Your task to perform on an android device: turn notification dots on Image 0: 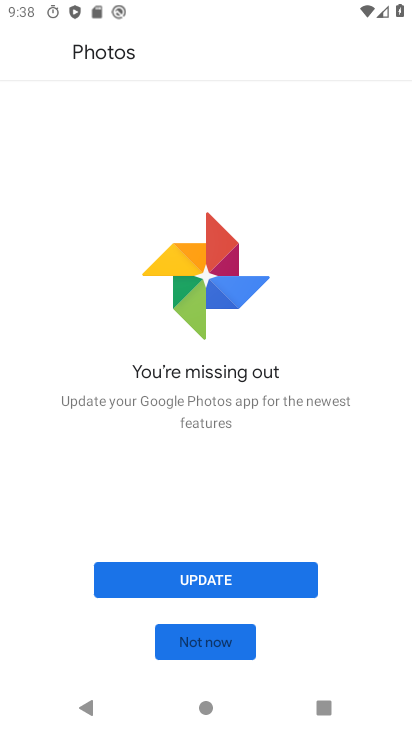
Step 0: press home button
Your task to perform on an android device: turn notification dots on Image 1: 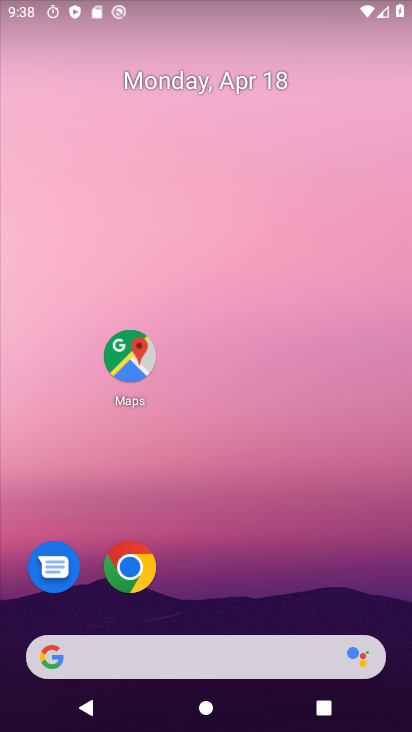
Step 1: drag from (316, 687) to (342, 388)
Your task to perform on an android device: turn notification dots on Image 2: 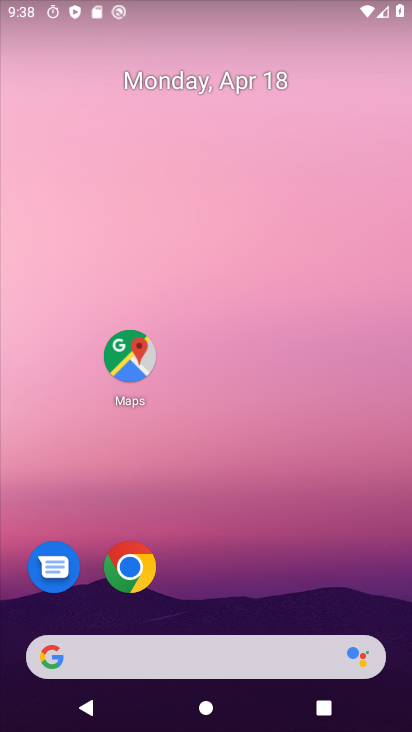
Step 2: drag from (247, 683) to (323, 329)
Your task to perform on an android device: turn notification dots on Image 3: 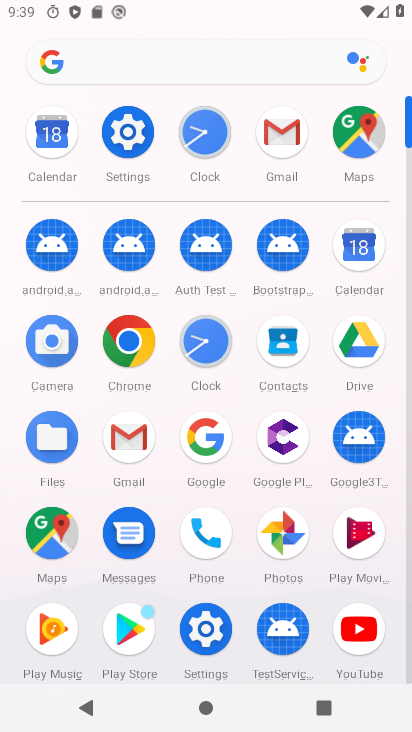
Step 3: click (190, 614)
Your task to perform on an android device: turn notification dots on Image 4: 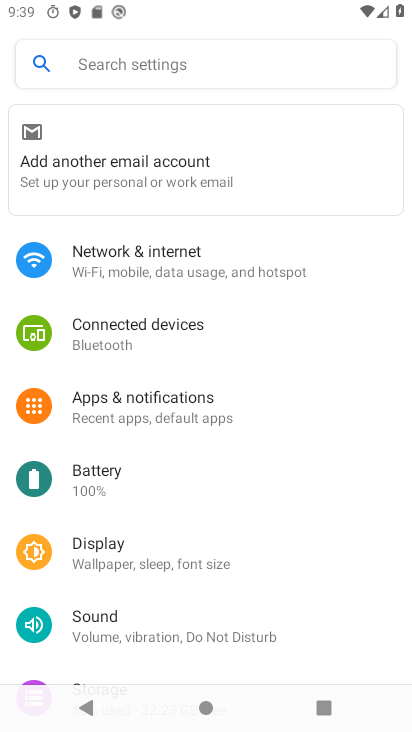
Step 4: click (170, 52)
Your task to perform on an android device: turn notification dots on Image 5: 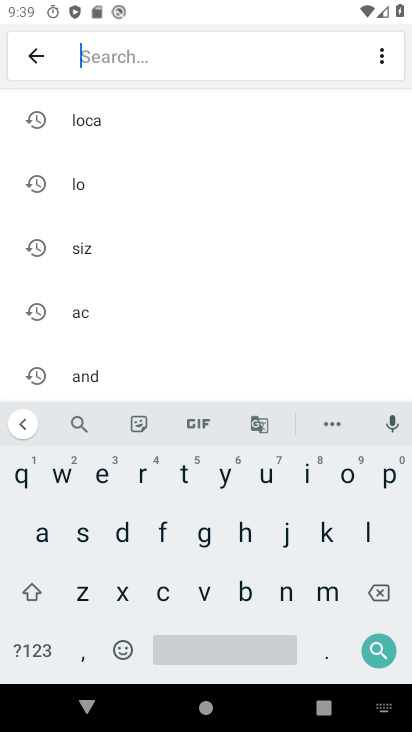
Step 5: click (118, 528)
Your task to perform on an android device: turn notification dots on Image 6: 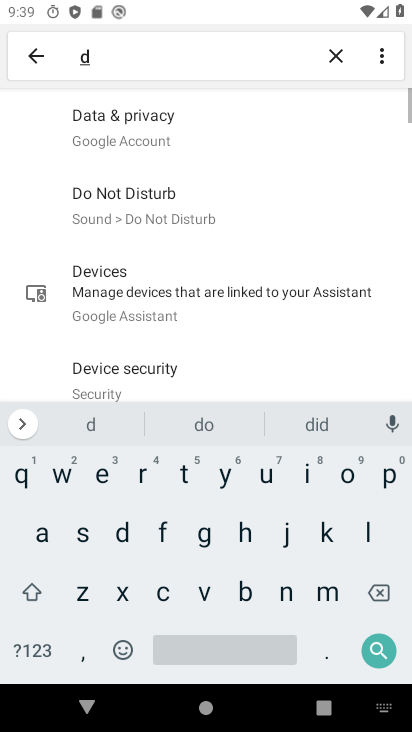
Step 6: click (346, 470)
Your task to perform on an android device: turn notification dots on Image 7: 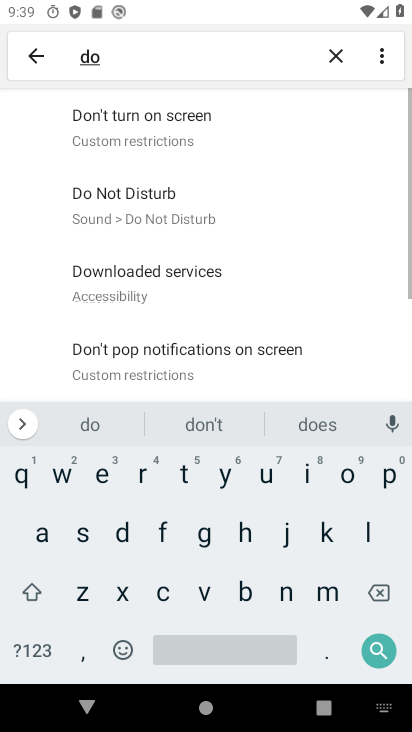
Step 7: click (184, 479)
Your task to perform on an android device: turn notification dots on Image 8: 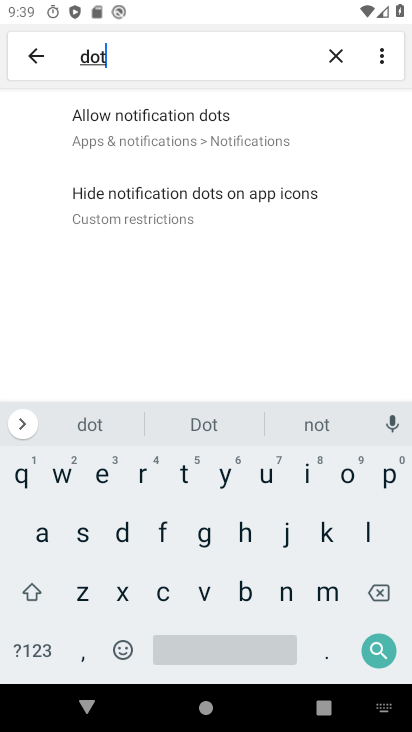
Step 8: click (179, 131)
Your task to perform on an android device: turn notification dots on Image 9: 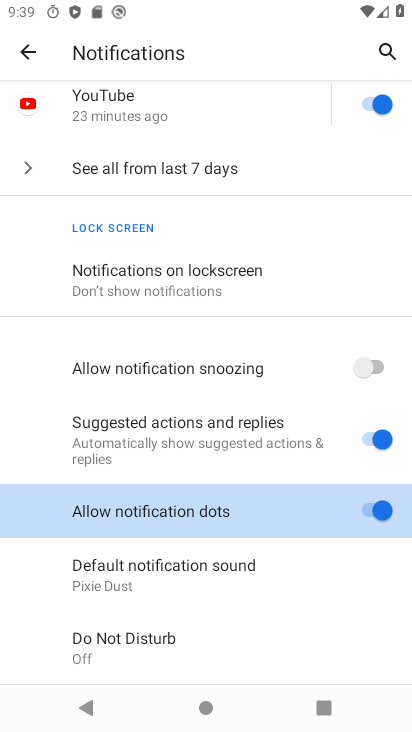
Step 9: click (209, 505)
Your task to perform on an android device: turn notification dots on Image 10: 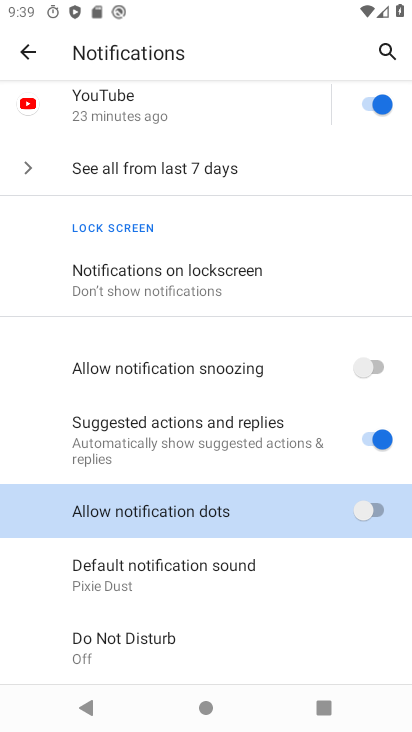
Step 10: click (213, 502)
Your task to perform on an android device: turn notification dots on Image 11: 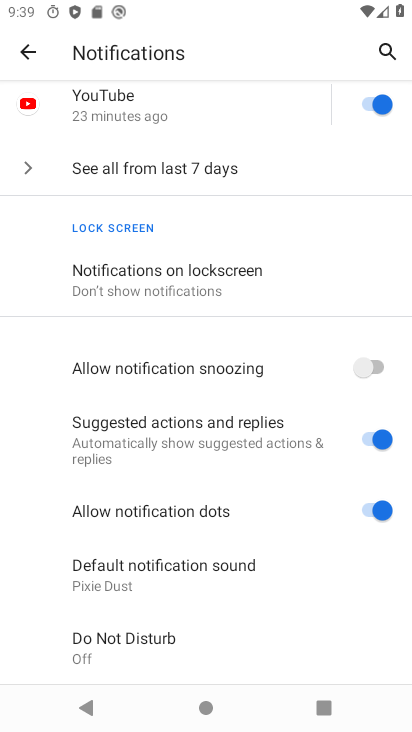
Step 11: task complete